Your task to perform on an android device: Open Chrome and go to settings Image 0: 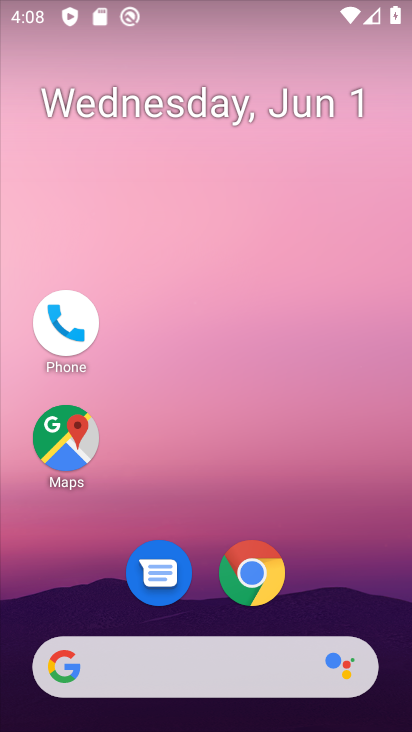
Step 0: click (247, 573)
Your task to perform on an android device: Open Chrome and go to settings Image 1: 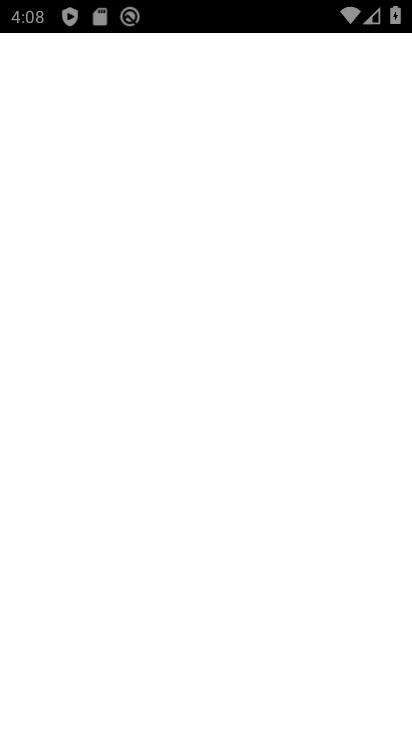
Step 1: click (247, 573)
Your task to perform on an android device: Open Chrome and go to settings Image 2: 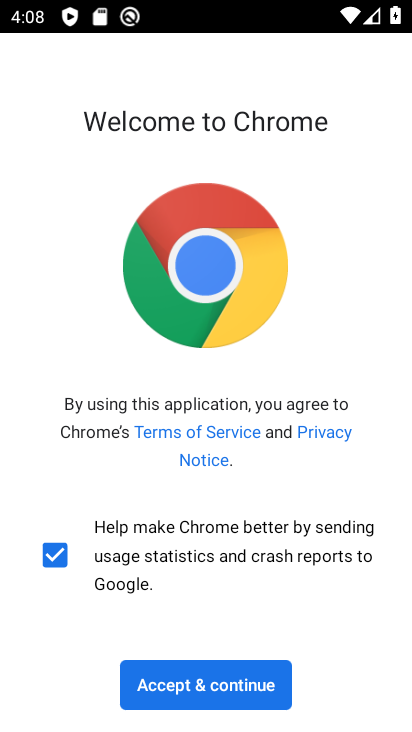
Step 2: click (181, 683)
Your task to perform on an android device: Open Chrome and go to settings Image 3: 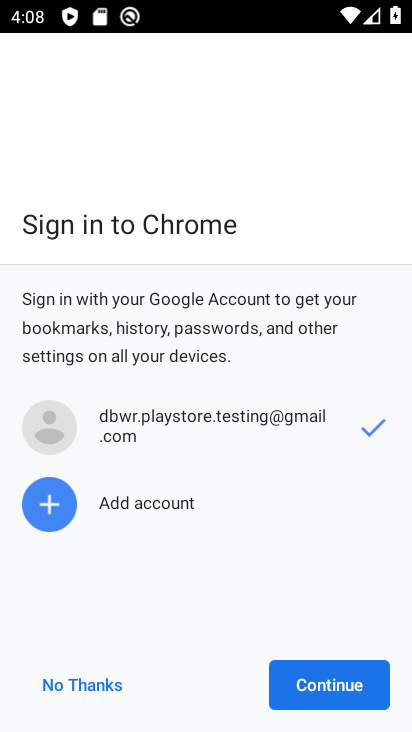
Step 3: click (297, 702)
Your task to perform on an android device: Open Chrome and go to settings Image 4: 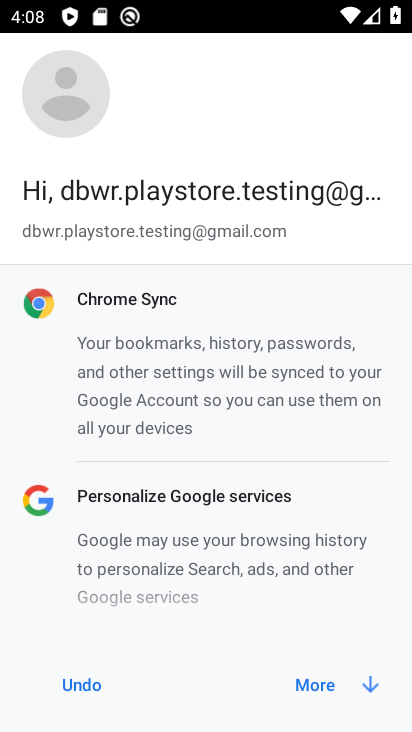
Step 4: click (308, 693)
Your task to perform on an android device: Open Chrome and go to settings Image 5: 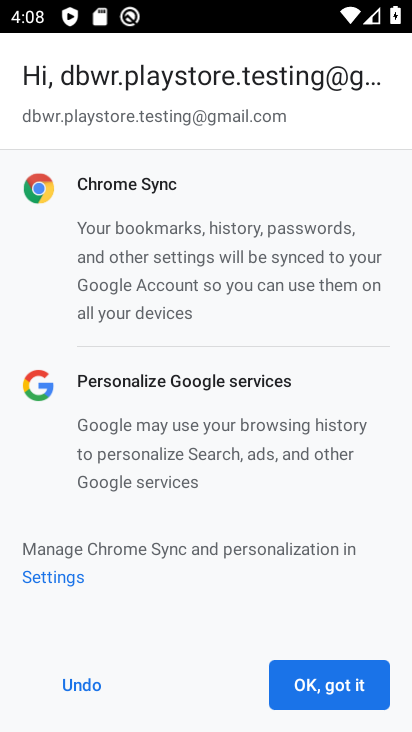
Step 5: click (308, 693)
Your task to perform on an android device: Open Chrome and go to settings Image 6: 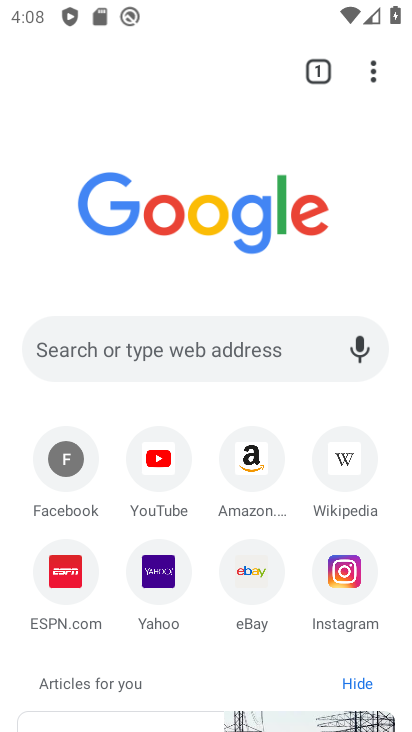
Step 6: click (390, 71)
Your task to perform on an android device: Open Chrome and go to settings Image 7: 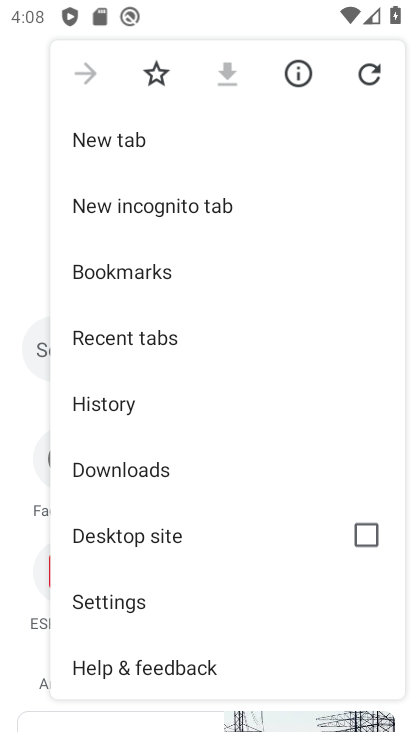
Step 7: click (160, 601)
Your task to perform on an android device: Open Chrome and go to settings Image 8: 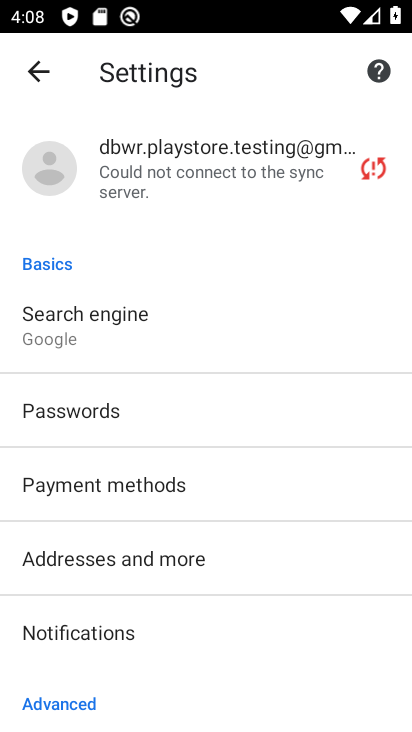
Step 8: task complete